Your task to perform on an android device: Go to Maps Image 0: 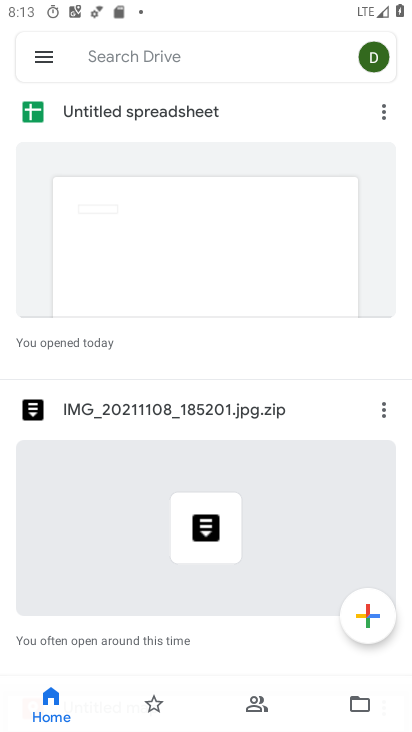
Step 0: press home button
Your task to perform on an android device: Go to Maps Image 1: 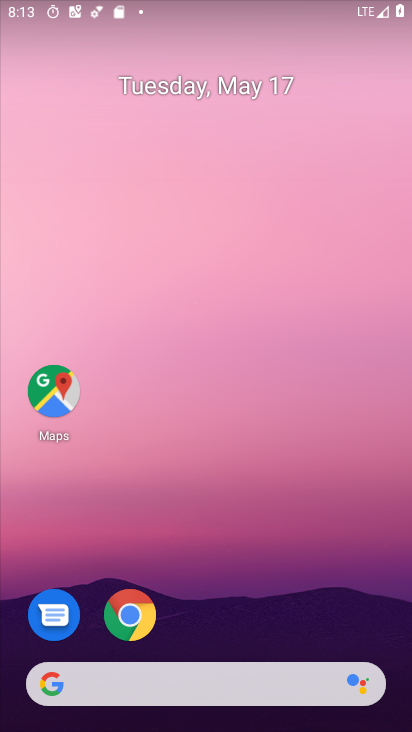
Step 1: click (62, 385)
Your task to perform on an android device: Go to Maps Image 2: 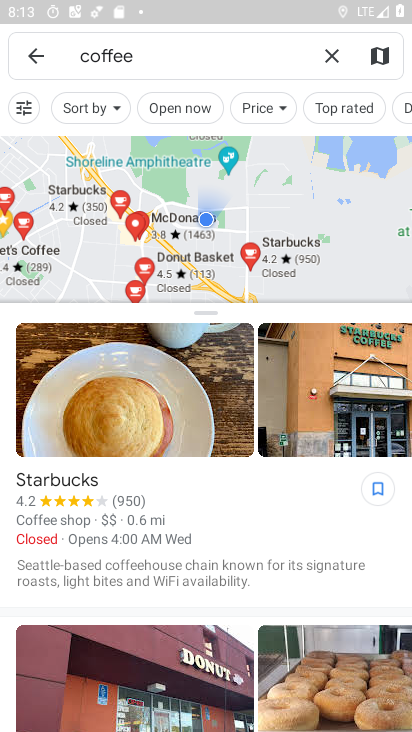
Step 2: click (321, 52)
Your task to perform on an android device: Go to Maps Image 3: 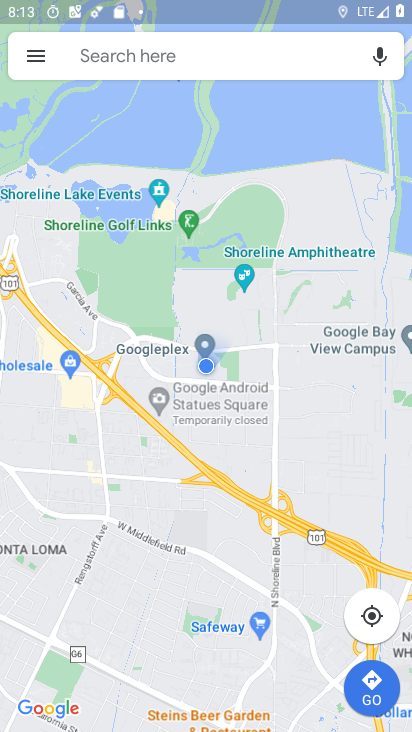
Step 3: task complete